Your task to perform on an android device: uninstall "Etsy: Buy & Sell Unique Items" Image 0: 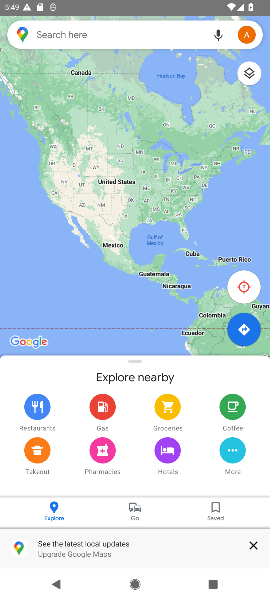
Step 0: press home button
Your task to perform on an android device: uninstall "Etsy: Buy & Sell Unique Items" Image 1: 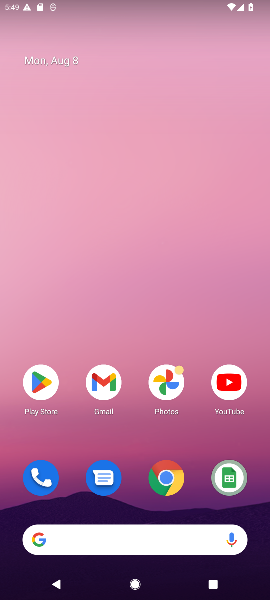
Step 1: click (46, 379)
Your task to perform on an android device: uninstall "Etsy: Buy & Sell Unique Items" Image 2: 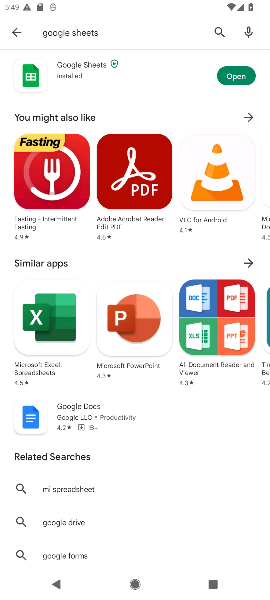
Step 2: click (218, 27)
Your task to perform on an android device: uninstall "Etsy: Buy & Sell Unique Items" Image 3: 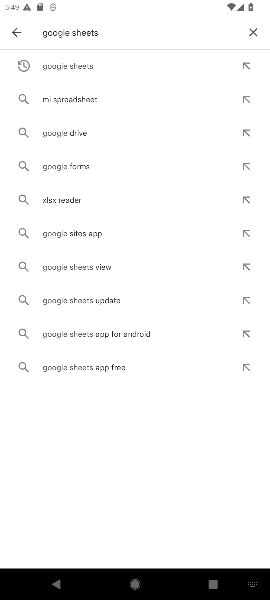
Step 3: click (250, 29)
Your task to perform on an android device: uninstall "Etsy: Buy & Sell Unique Items" Image 4: 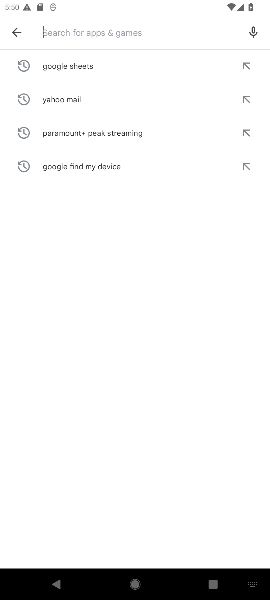
Step 4: type "etsy: buy & sell unique items"
Your task to perform on an android device: uninstall "Etsy: Buy & Sell Unique Items" Image 5: 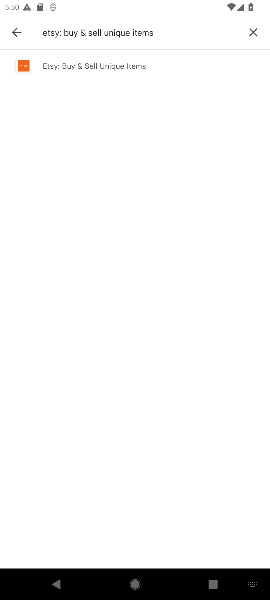
Step 5: click (103, 66)
Your task to perform on an android device: uninstall "Etsy: Buy & Sell Unique Items" Image 6: 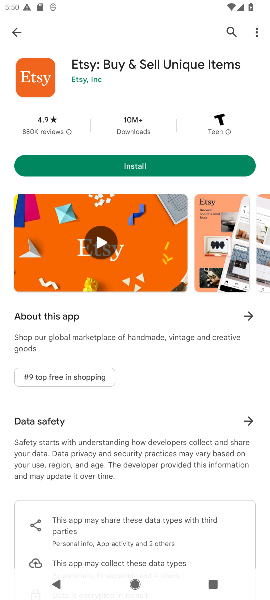
Step 6: task complete